Your task to perform on an android device: What is the news today? Image 0: 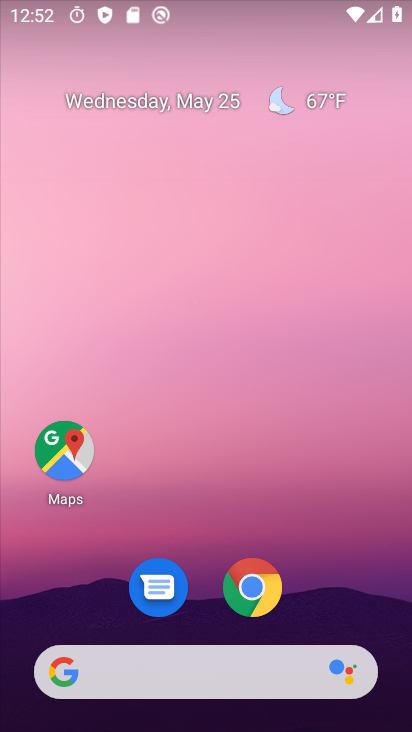
Step 0: drag from (2, 313) to (401, 344)
Your task to perform on an android device: What is the news today? Image 1: 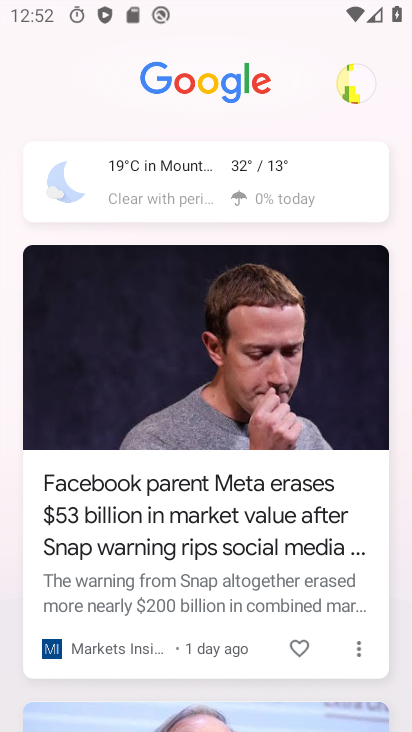
Step 1: task complete